Your task to perform on an android device: install app "TextNow: Call + Text Unlimited" Image 0: 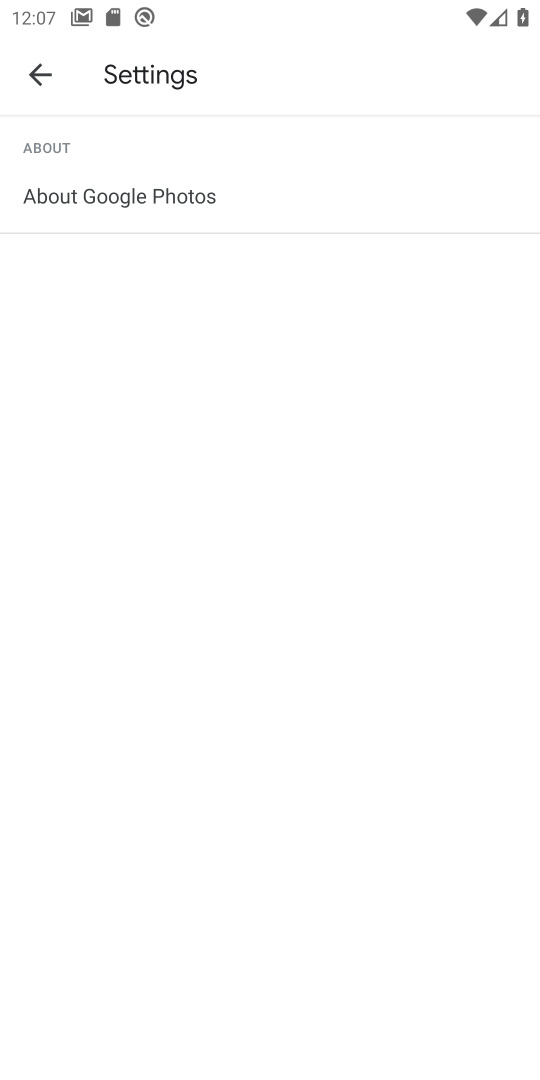
Step 0: press home button
Your task to perform on an android device: install app "TextNow: Call + Text Unlimited" Image 1: 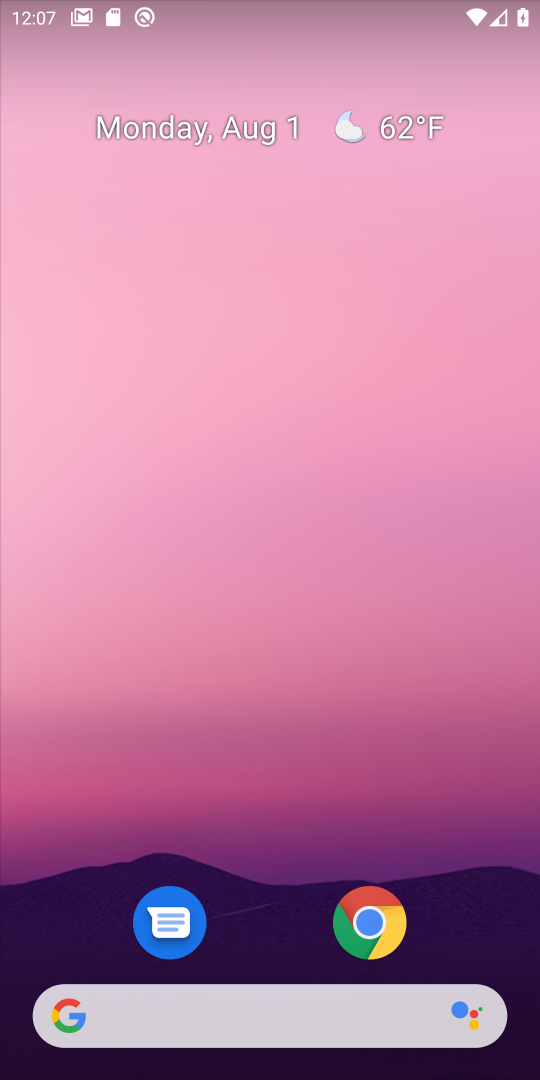
Step 1: drag from (255, 907) to (322, 267)
Your task to perform on an android device: install app "TextNow: Call + Text Unlimited" Image 2: 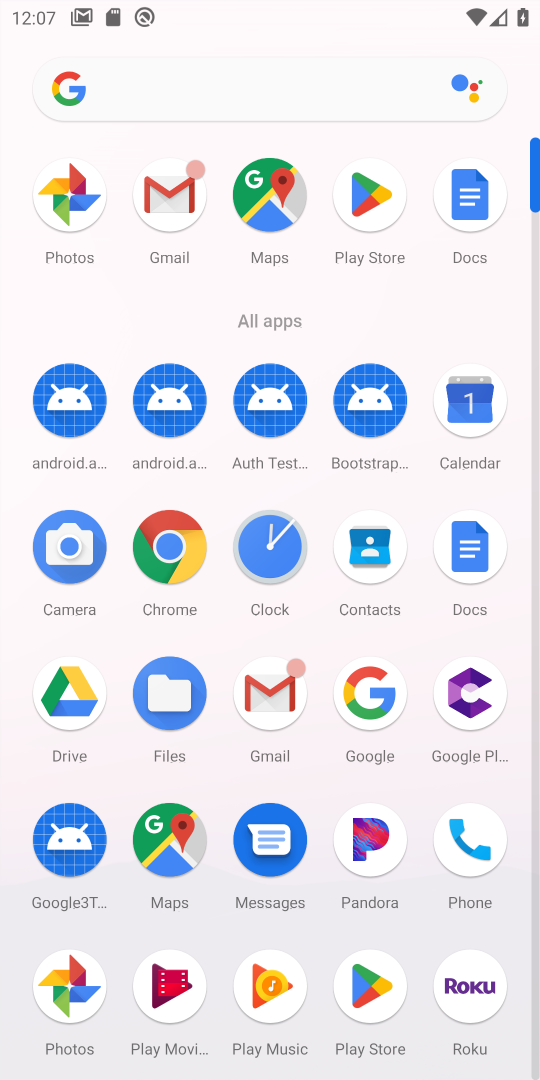
Step 2: click (349, 225)
Your task to perform on an android device: install app "TextNow: Call + Text Unlimited" Image 3: 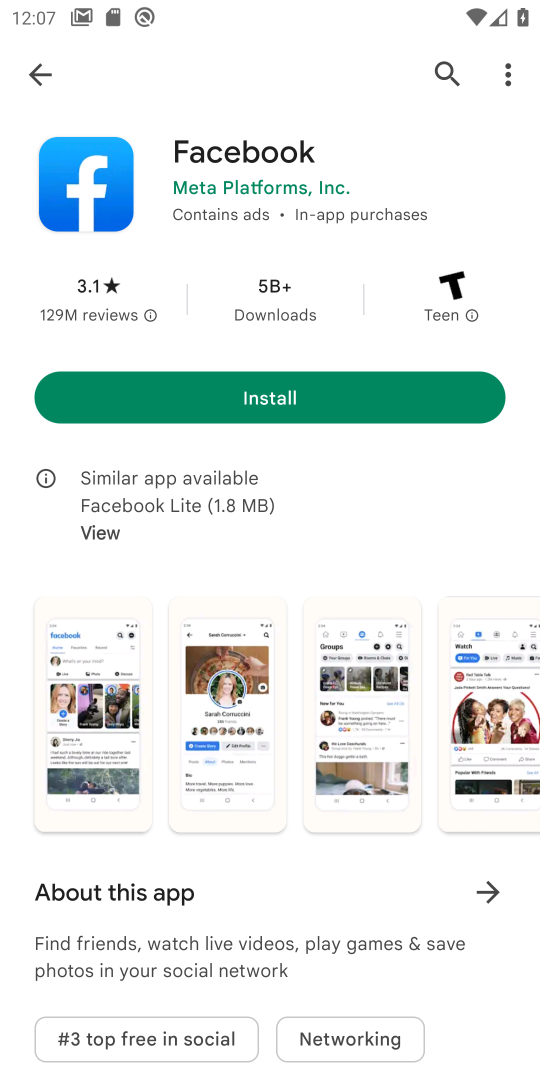
Step 3: click (444, 83)
Your task to perform on an android device: install app "TextNow: Call + Text Unlimited" Image 4: 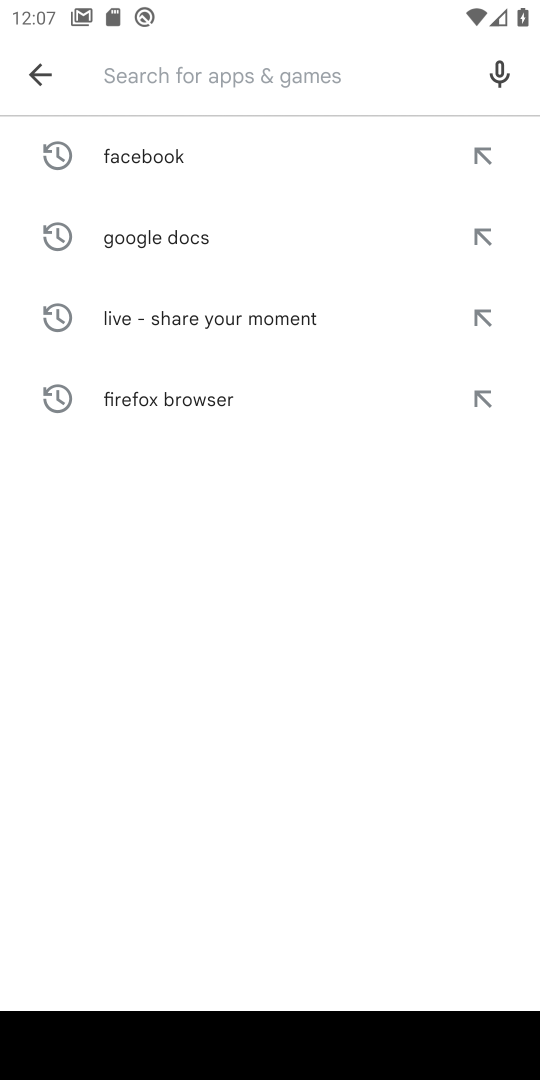
Step 4: type "TextNow: Call + Text Unlimited"
Your task to perform on an android device: install app "TextNow: Call + Text Unlimited" Image 5: 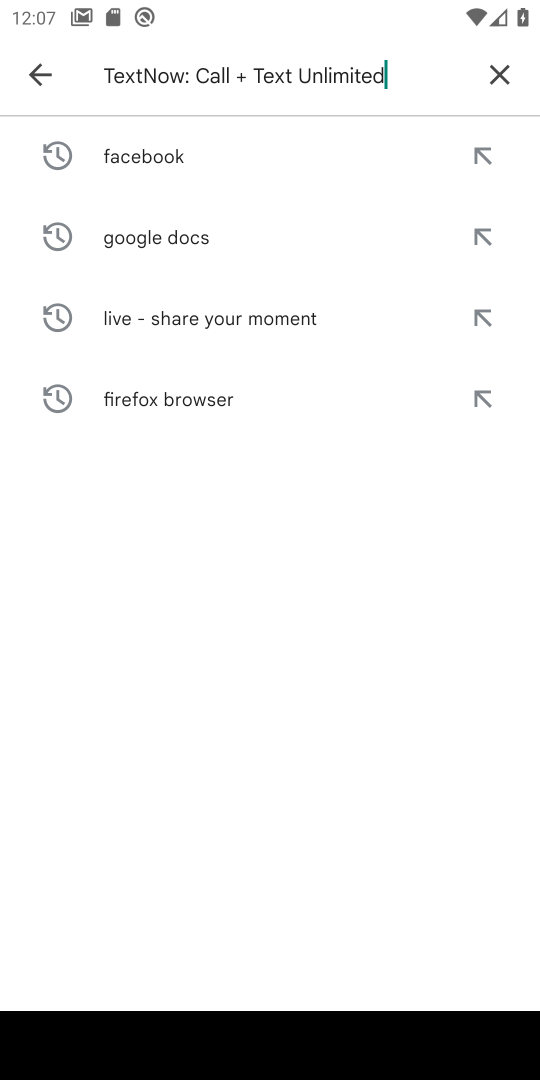
Step 5: type ""
Your task to perform on an android device: install app "TextNow: Call + Text Unlimited" Image 6: 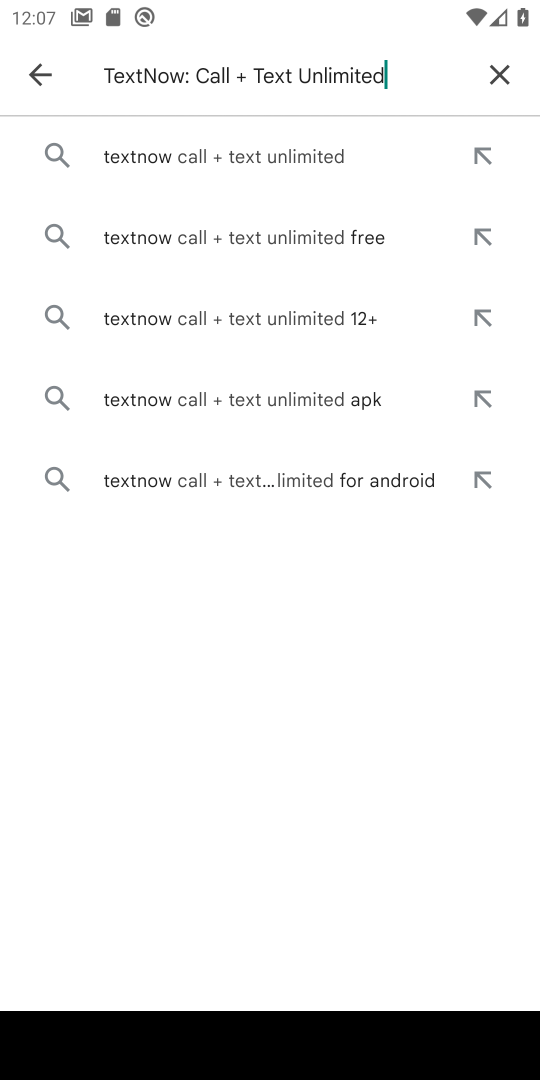
Step 6: click (185, 157)
Your task to perform on an android device: install app "TextNow: Call + Text Unlimited" Image 7: 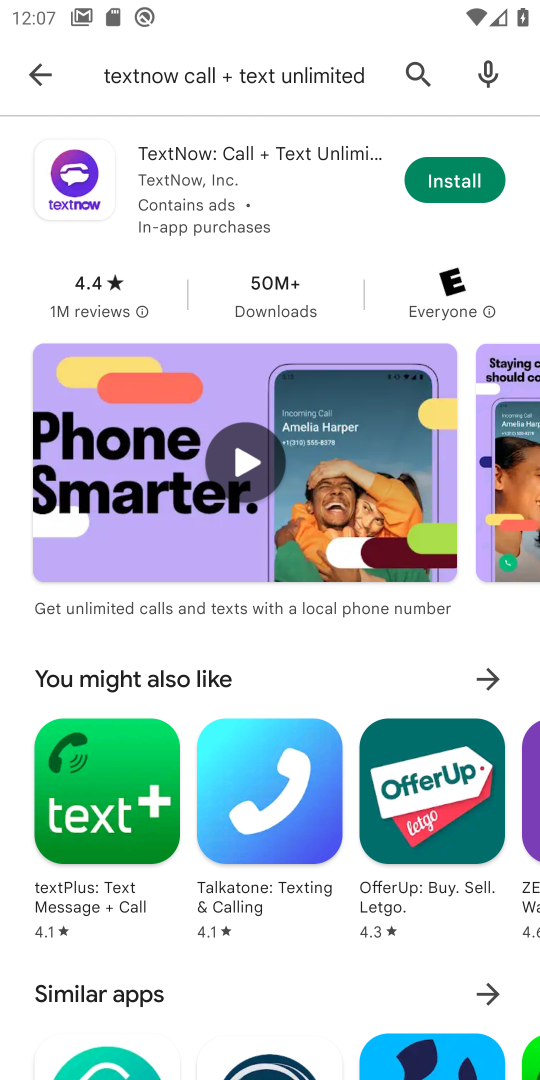
Step 7: click (457, 191)
Your task to perform on an android device: install app "TextNow: Call + Text Unlimited" Image 8: 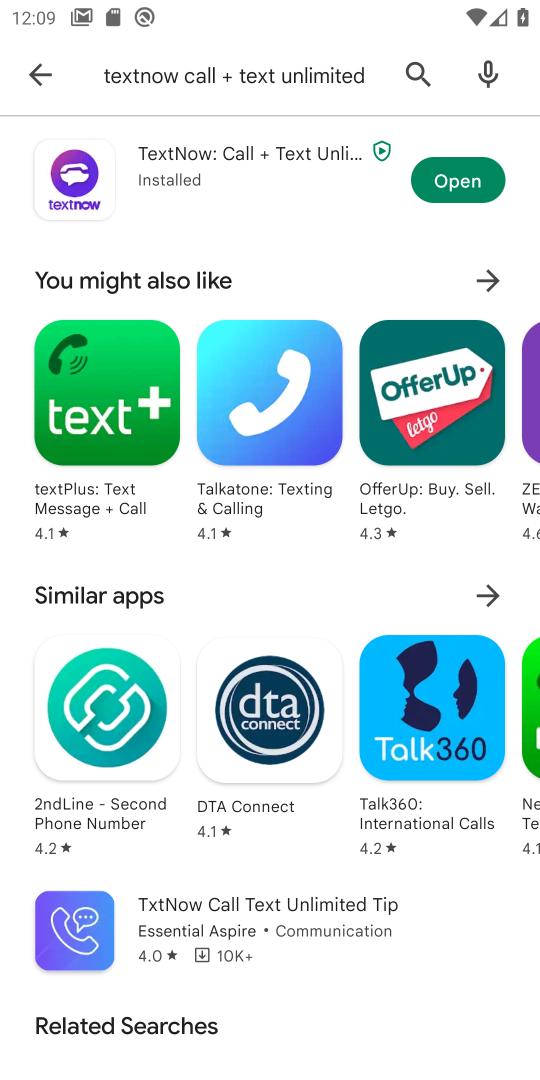
Step 8: task complete